Your task to perform on an android device: Open Chrome and go to settings Image 0: 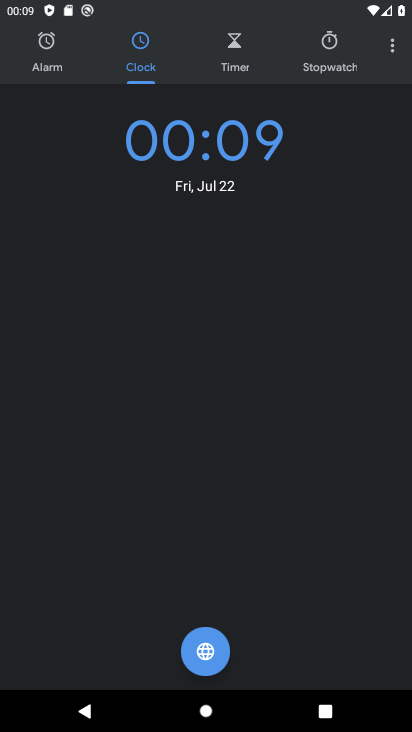
Step 0: press back button
Your task to perform on an android device: Open Chrome and go to settings Image 1: 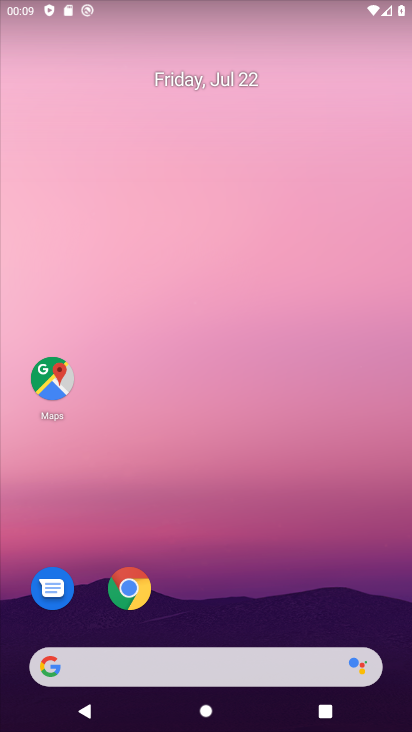
Step 1: click (138, 587)
Your task to perform on an android device: Open Chrome and go to settings Image 2: 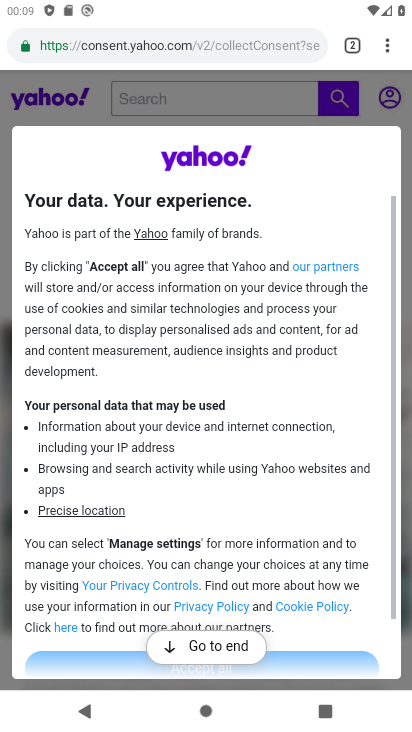
Step 2: task complete